Your task to perform on an android device: Open Maps and search for coffee Image 0: 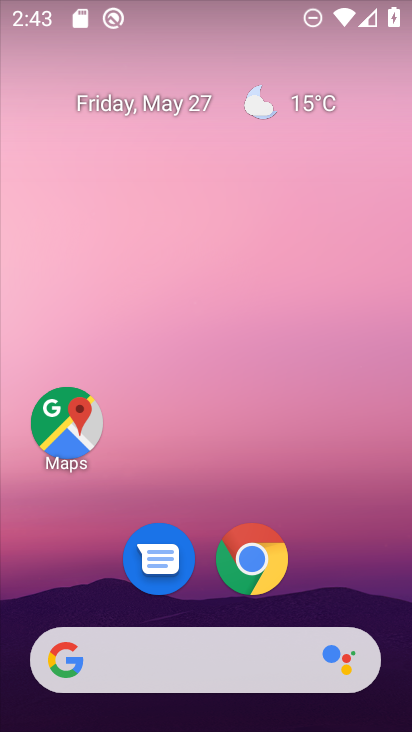
Step 0: drag from (252, 549) to (320, 0)
Your task to perform on an android device: Open Maps and search for coffee Image 1: 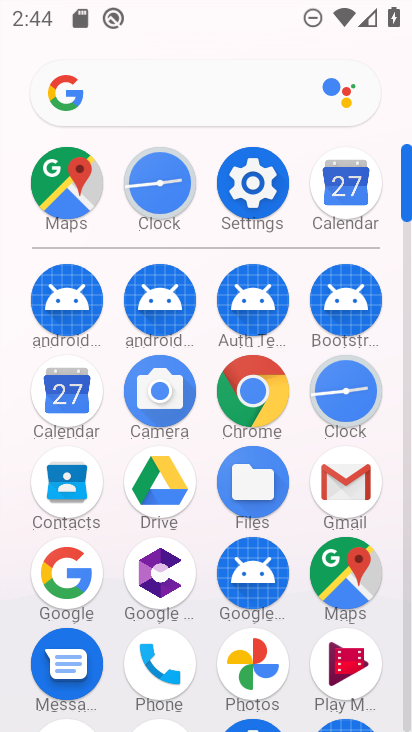
Step 1: click (264, 399)
Your task to perform on an android device: Open Maps and search for coffee Image 2: 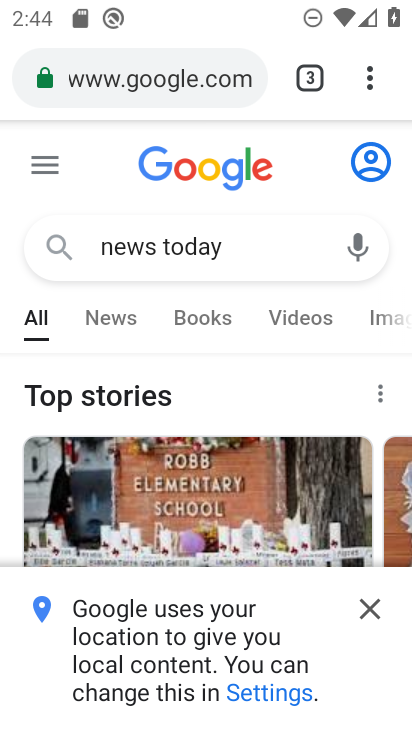
Step 2: press home button
Your task to perform on an android device: Open Maps and search for coffee Image 3: 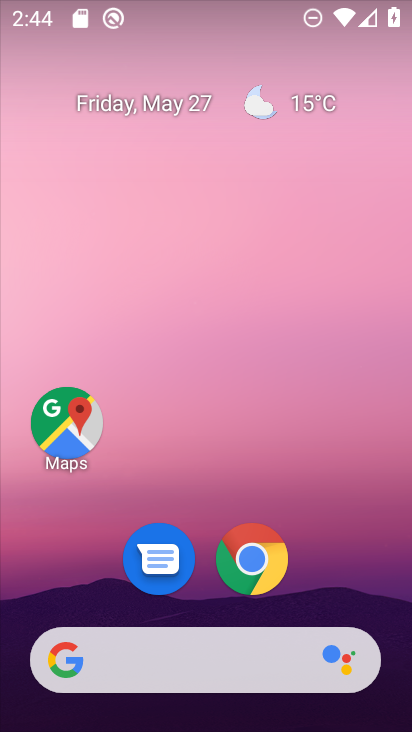
Step 3: drag from (147, 671) to (303, 16)
Your task to perform on an android device: Open Maps and search for coffee Image 4: 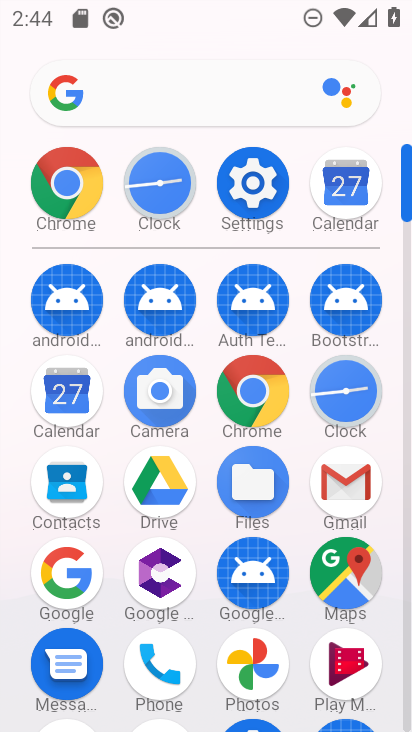
Step 4: click (356, 565)
Your task to perform on an android device: Open Maps and search for coffee Image 5: 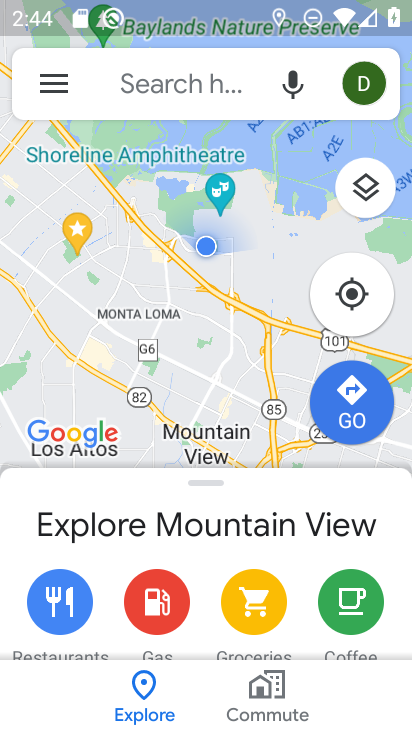
Step 5: click (197, 89)
Your task to perform on an android device: Open Maps and search for coffee Image 6: 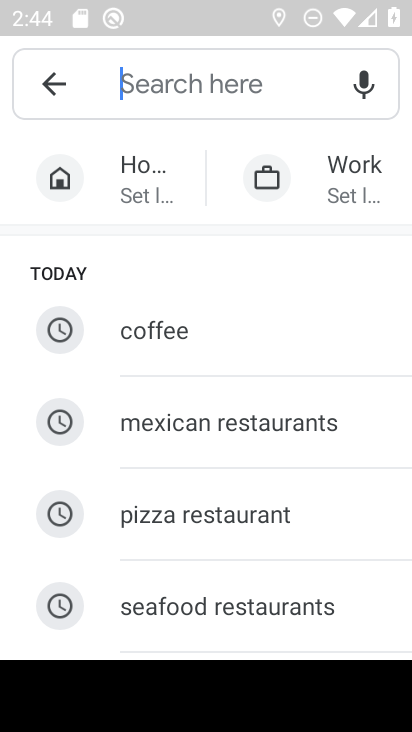
Step 6: click (205, 340)
Your task to perform on an android device: Open Maps and search for coffee Image 7: 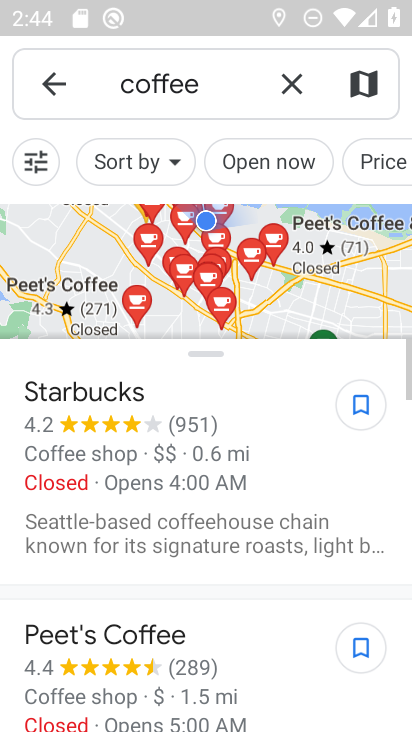
Step 7: task complete